Your task to perform on an android device: move a message to another label in the gmail app Image 0: 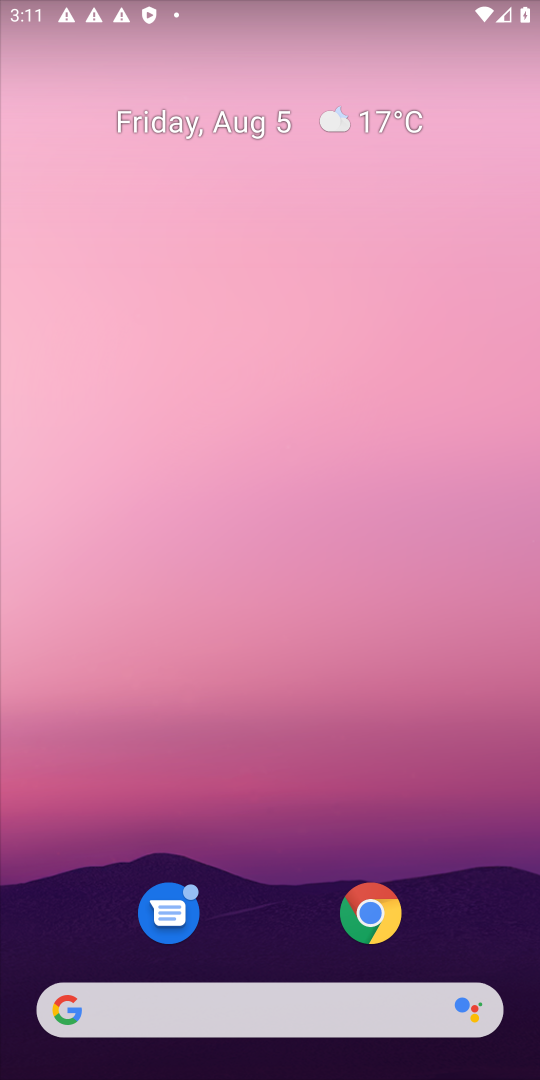
Step 0: drag from (175, 992) to (336, 172)
Your task to perform on an android device: move a message to another label in the gmail app Image 1: 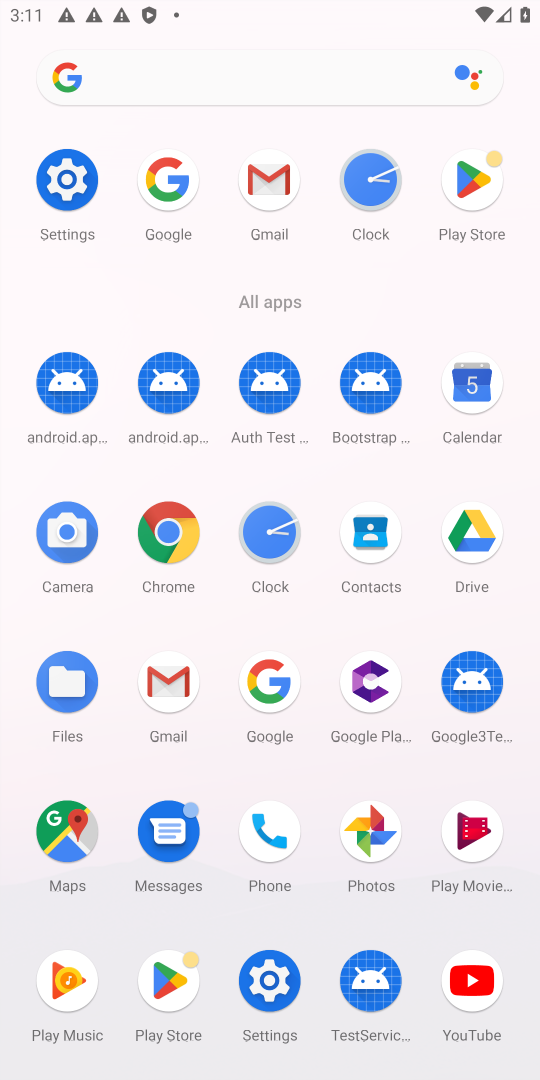
Step 1: click (264, 177)
Your task to perform on an android device: move a message to another label in the gmail app Image 2: 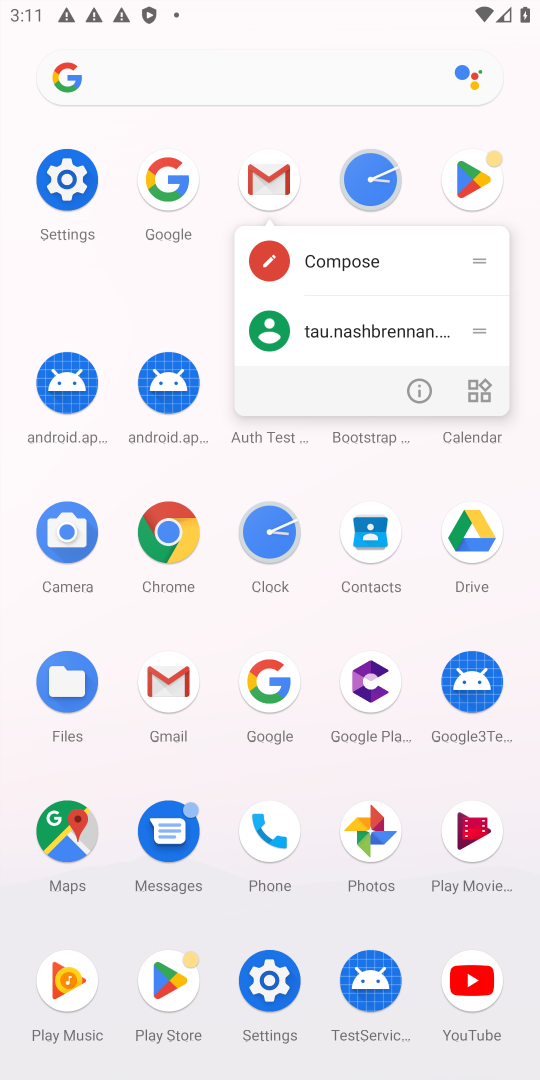
Step 2: click (269, 184)
Your task to perform on an android device: move a message to another label in the gmail app Image 3: 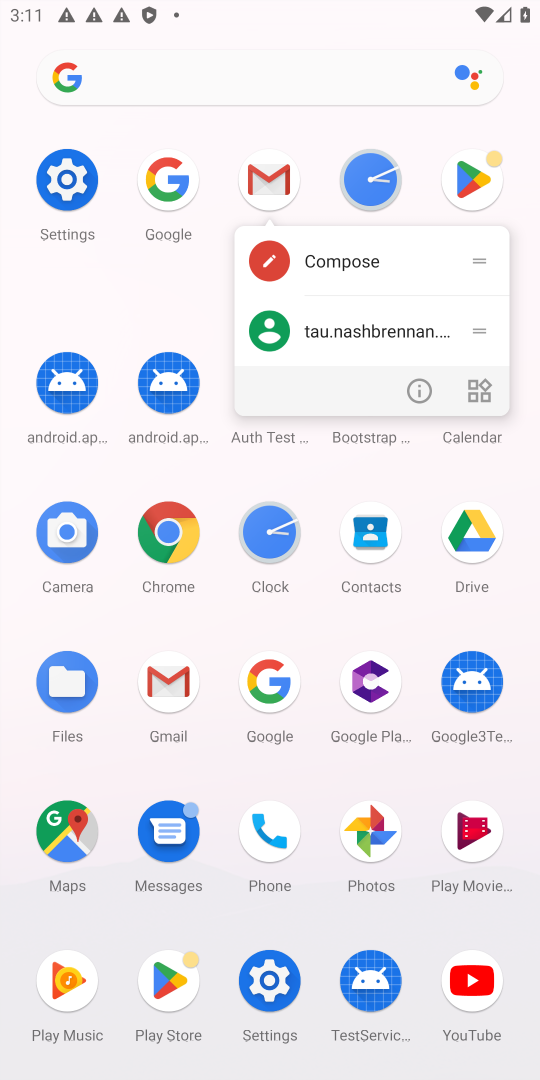
Step 3: click (268, 183)
Your task to perform on an android device: move a message to another label in the gmail app Image 4: 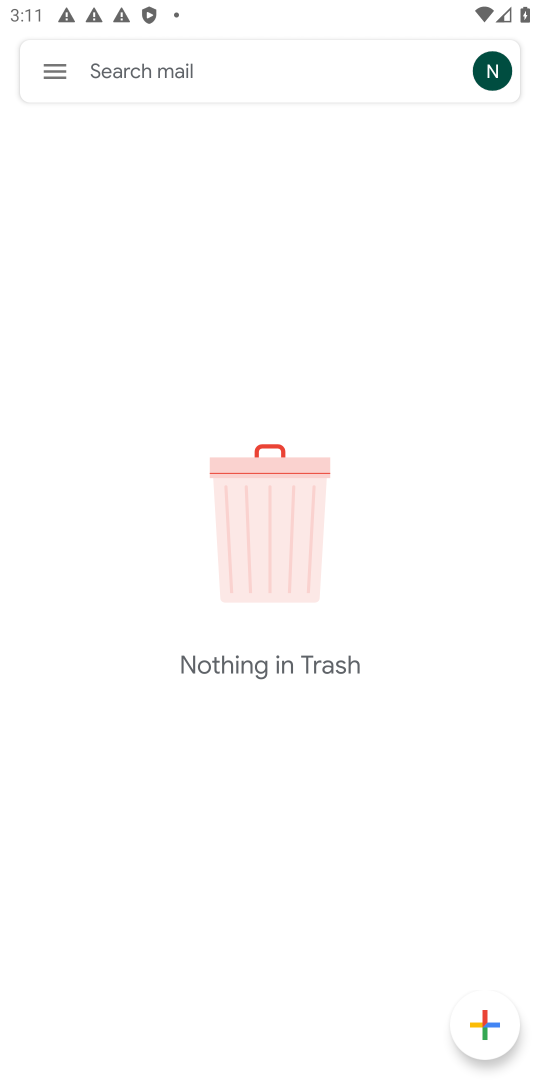
Step 4: click (53, 73)
Your task to perform on an android device: move a message to another label in the gmail app Image 5: 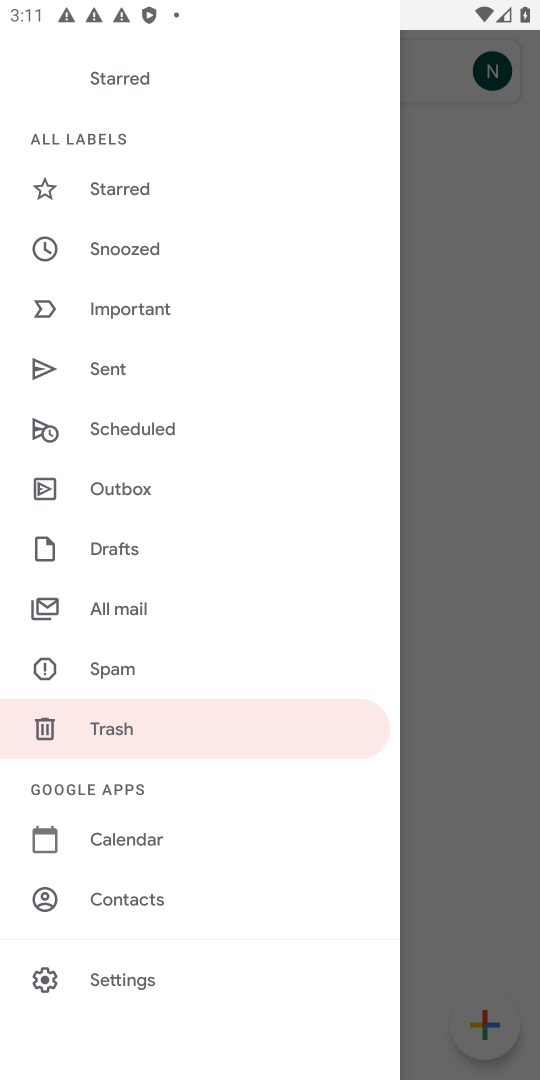
Step 5: click (132, 616)
Your task to perform on an android device: move a message to another label in the gmail app Image 6: 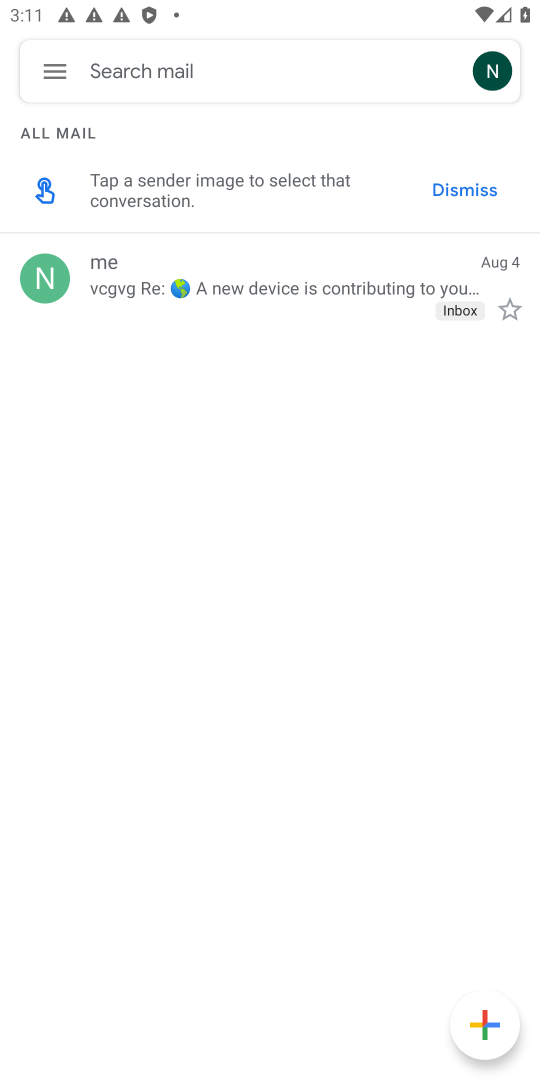
Step 6: click (156, 279)
Your task to perform on an android device: move a message to another label in the gmail app Image 7: 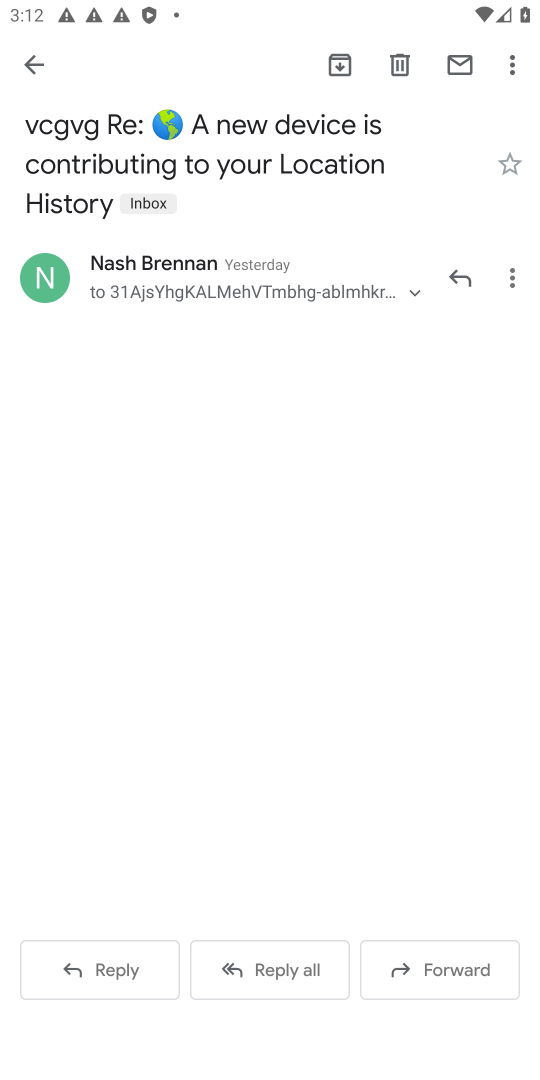
Step 7: click (148, 207)
Your task to perform on an android device: move a message to another label in the gmail app Image 8: 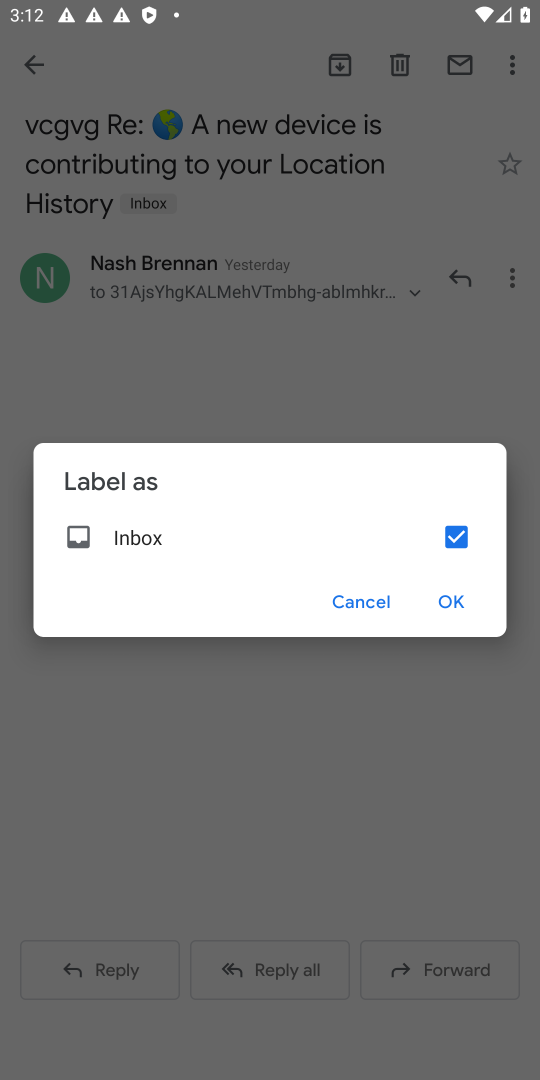
Step 8: click (448, 536)
Your task to perform on an android device: move a message to another label in the gmail app Image 9: 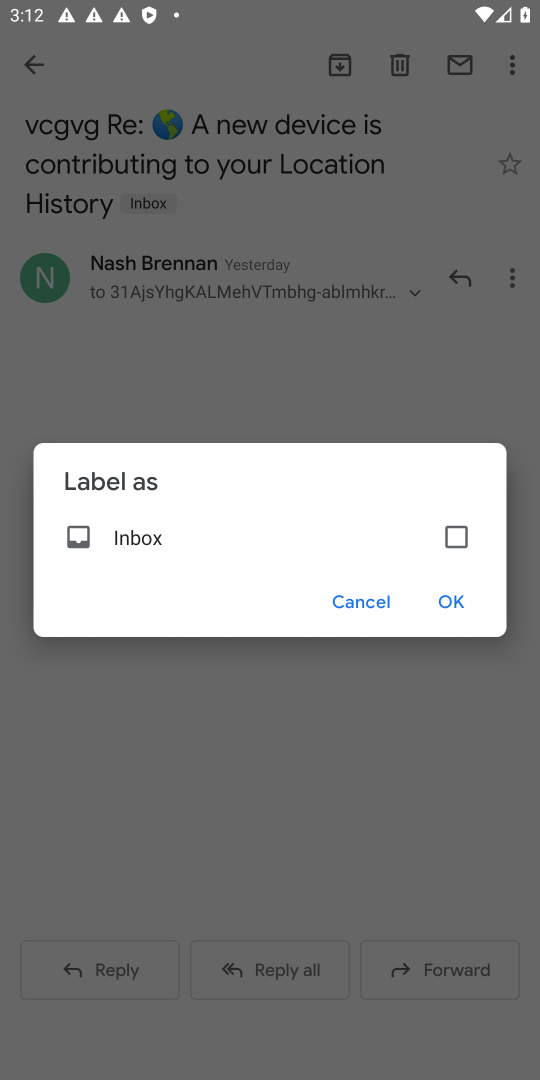
Step 9: click (458, 604)
Your task to perform on an android device: move a message to another label in the gmail app Image 10: 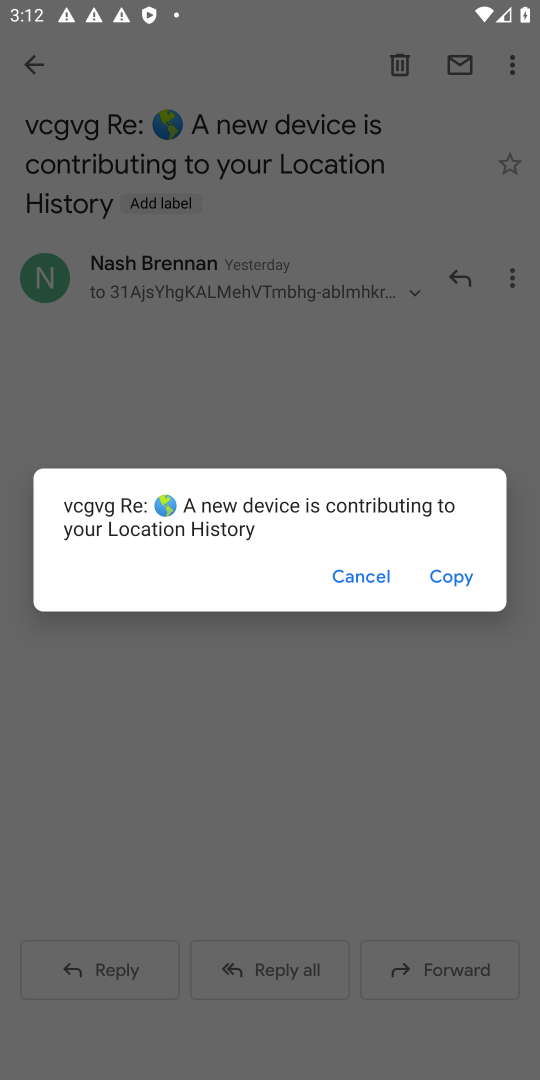
Step 10: task complete